Your task to perform on an android device: check android version Image 0: 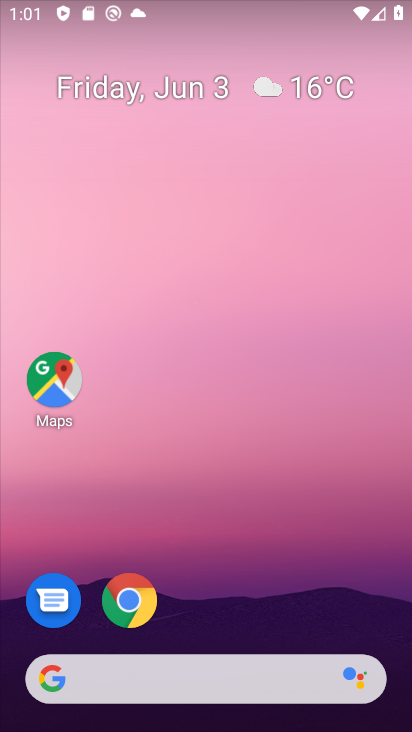
Step 0: drag from (214, 629) to (346, 40)
Your task to perform on an android device: check android version Image 1: 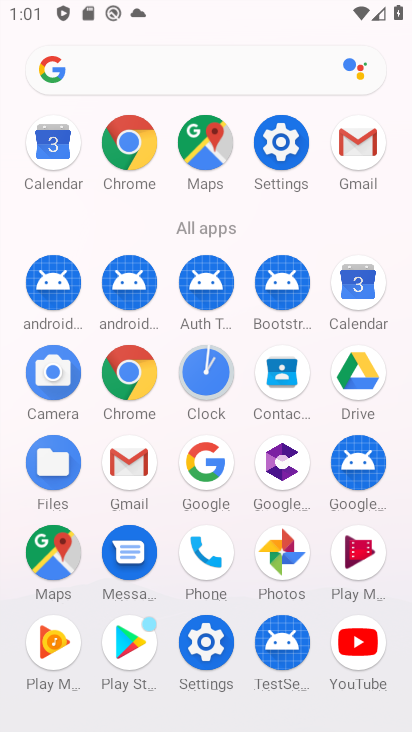
Step 1: click (285, 163)
Your task to perform on an android device: check android version Image 2: 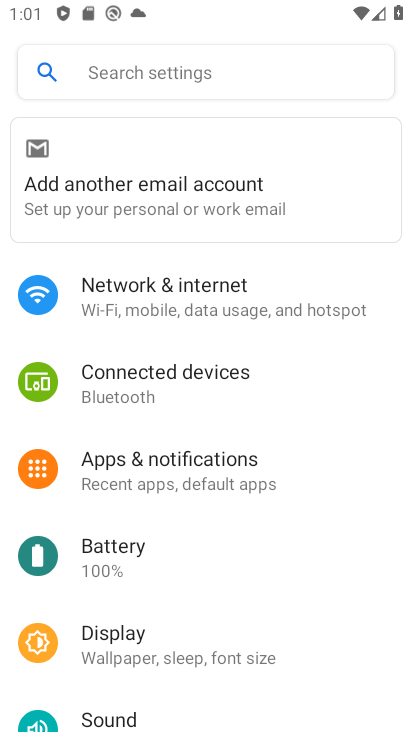
Step 2: click (275, 150)
Your task to perform on an android device: check android version Image 3: 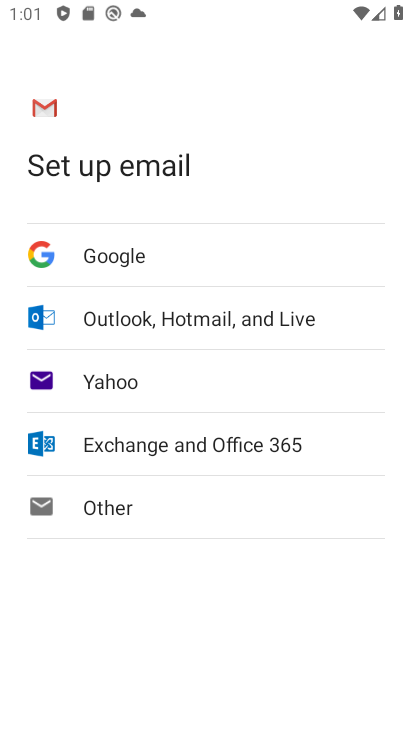
Step 3: drag from (160, 672) to (176, 270)
Your task to perform on an android device: check android version Image 4: 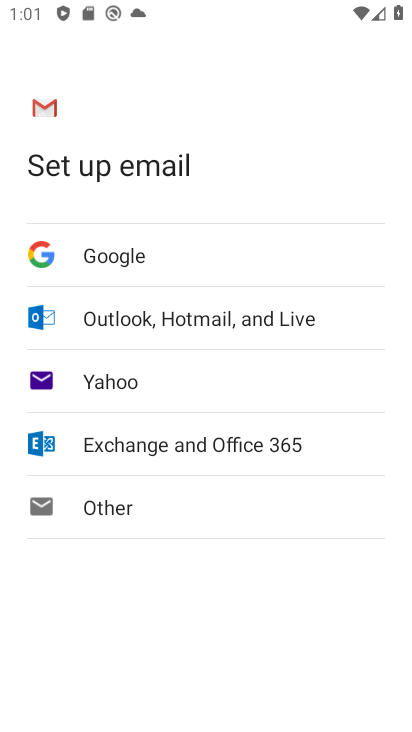
Step 4: drag from (187, 293) to (188, 259)
Your task to perform on an android device: check android version Image 5: 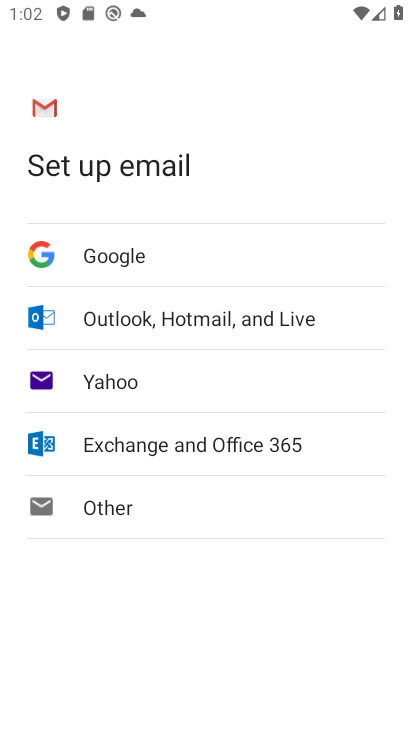
Step 5: press back button
Your task to perform on an android device: check android version Image 6: 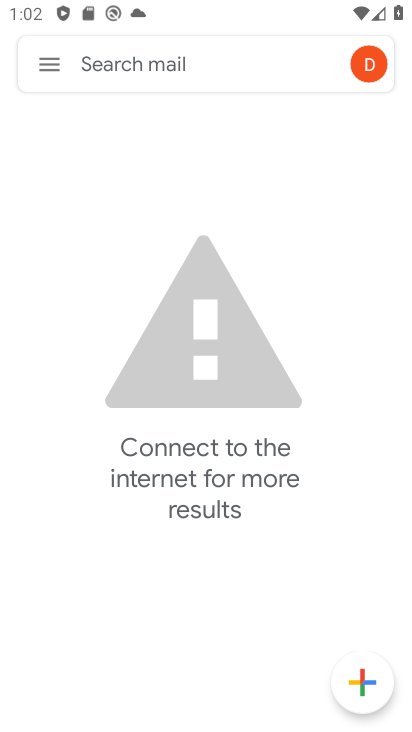
Step 6: press home button
Your task to perform on an android device: check android version Image 7: 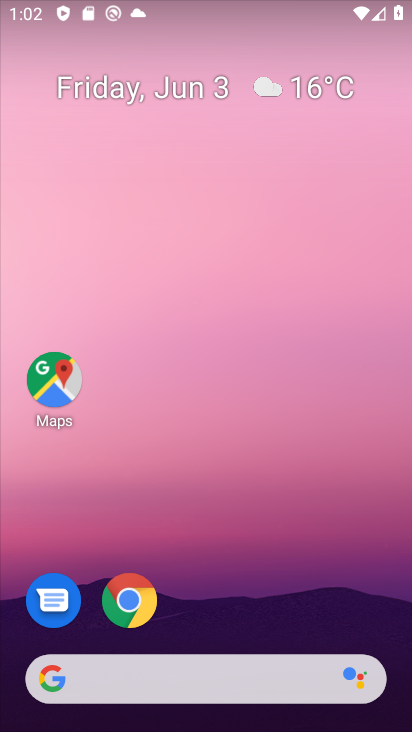
Step 7: drag from (211, 524) to (408, 123)
Your task to perform on an android device: check android version Image 8: 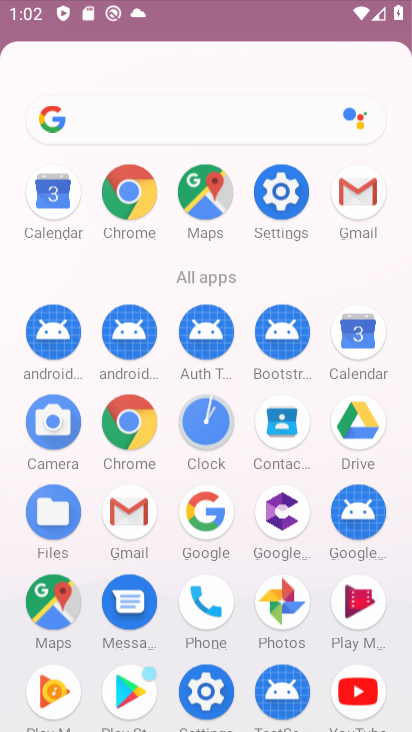
Step 8: click (264, 305)
Your task to perform on an android device: check android version Image 9: 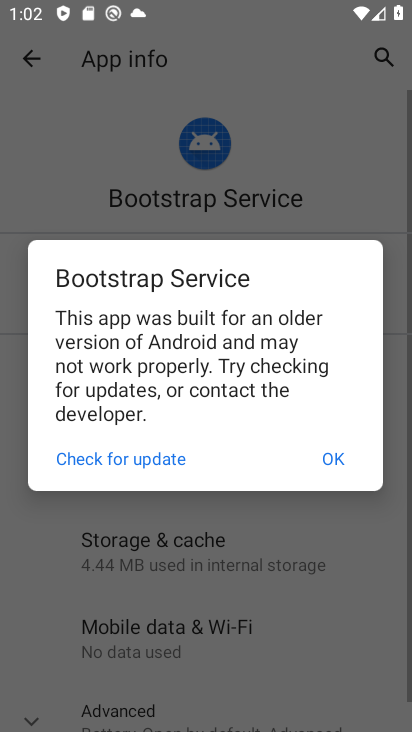
Step 9: click (301, 144)
Your task to perform on an android device: check android version Image 10: 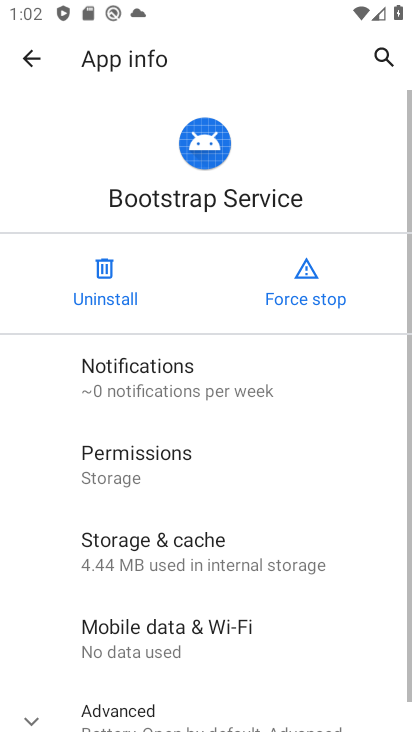
Step 10: click (324, 470)
Your task to perform on an android device: check android version Image 11: 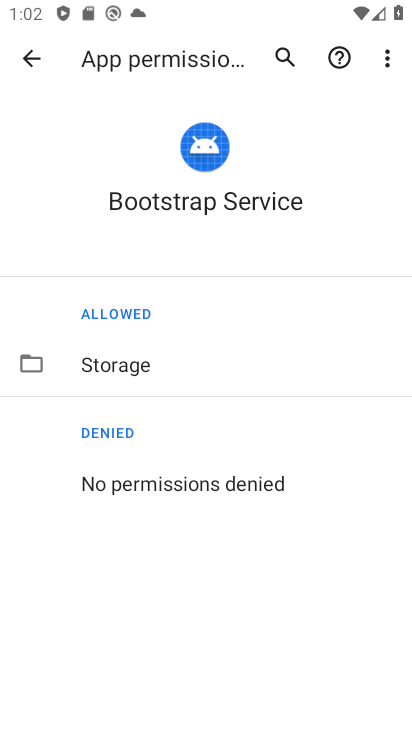
Step 11: click (22, 62)
Your task to perform on an android device: check android version Image 12: 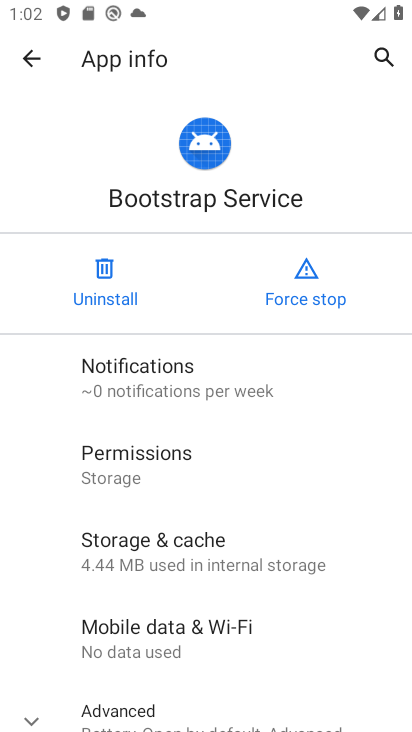
Step 12: click (93, 62)
Your task to perform on an android device: check android version Image 13: 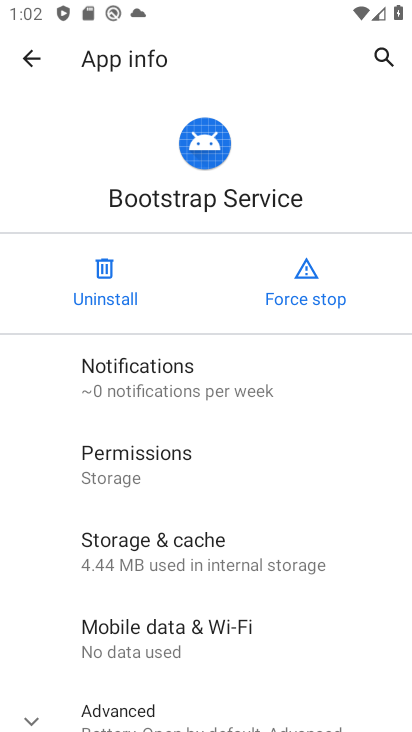
Step 13: click (37, 54)
Your task to perform on an android device: check android version Image 14: 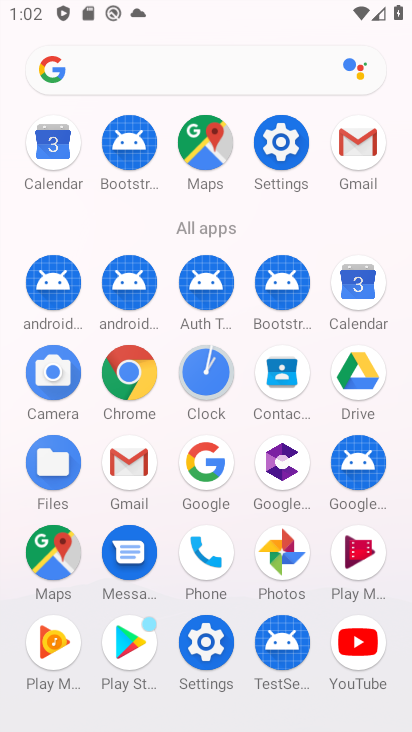
Step 14: click (276, 151)
Your task to perform on an android device: check android version Image 15: 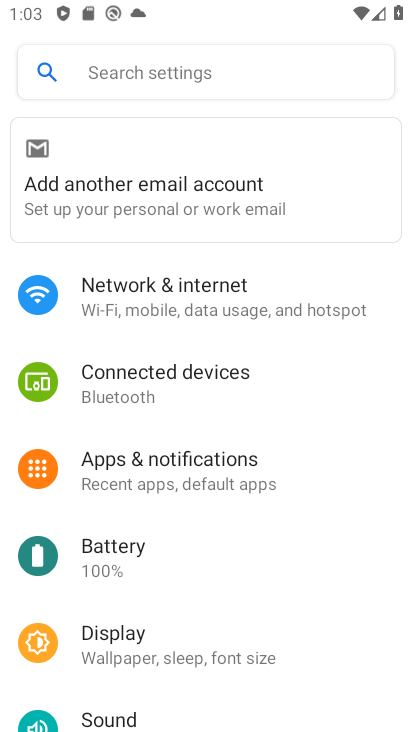
Step 15: drag from (192, 560) to (189, 262)
Your task to perform on an android device: check android version Image 16: 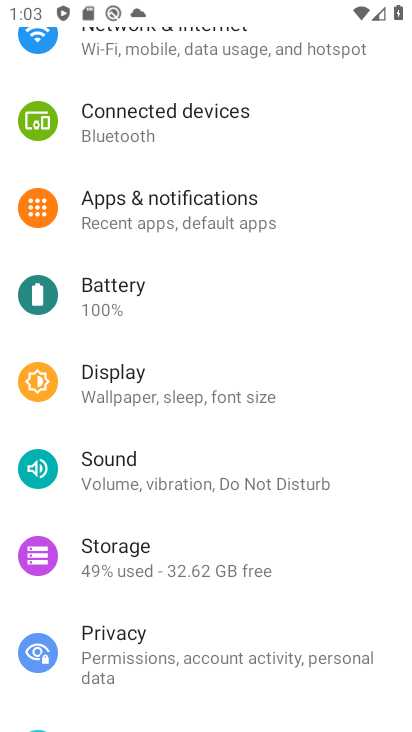
Step 16: drag from (223, 690) to (261, 0)
Your task to perform on an android device: check android version Image 17: 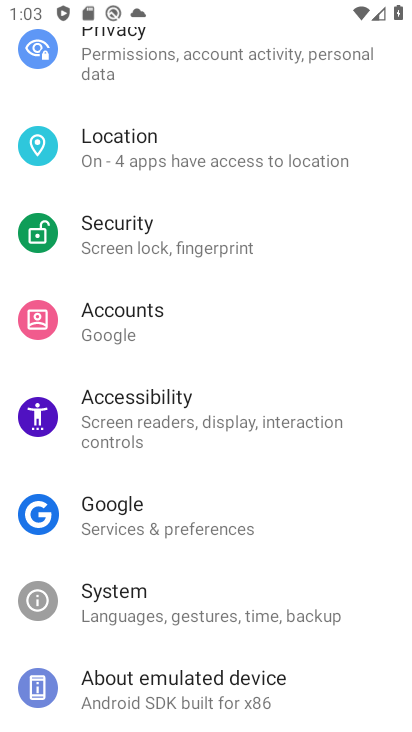
Step 17: click (191, 715)
Your task to perform on an android device: check android version Image 18: 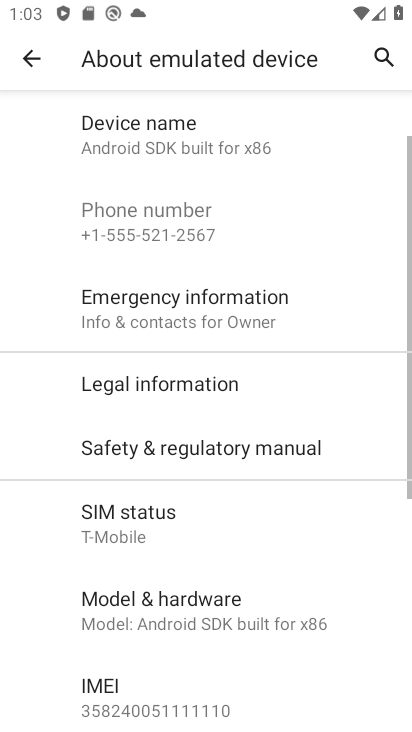
Step 18: drag from (165, 670) to (165, 501)
Your task to perform on an android device: check android version Image 19: 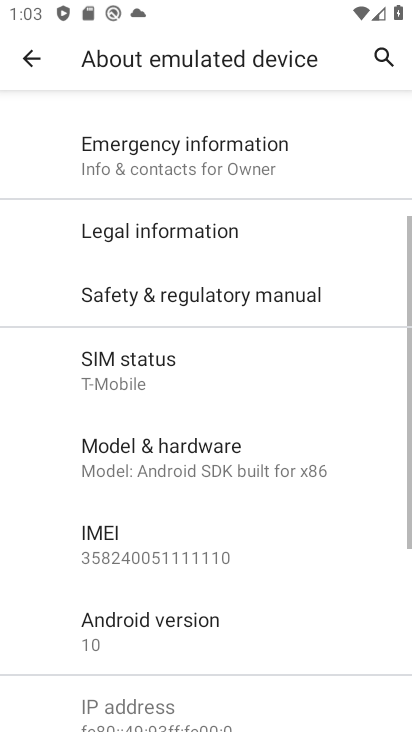
Step 19: click (136, 659)
Your task to perform on an android device: check android version Image 20: 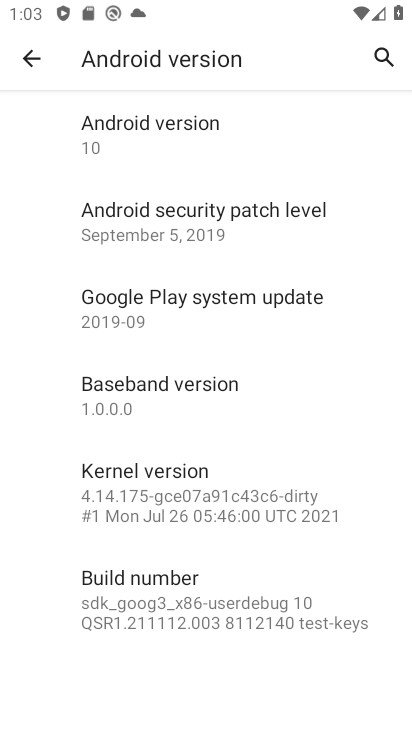
Step 20: task complete